Your task to perform on an android device: Go to Android settings Image 0: 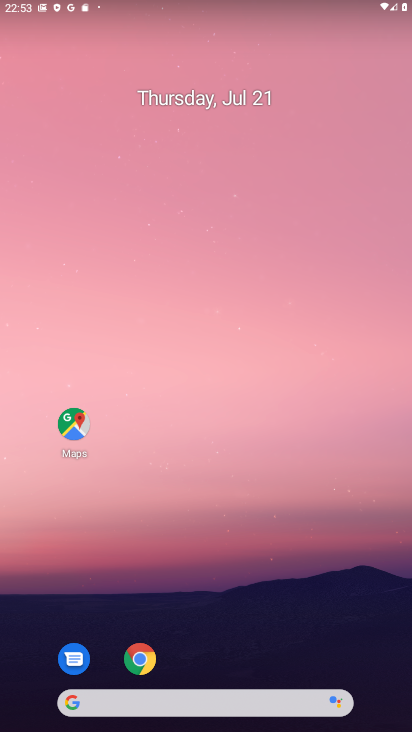
Step 0: press home button
Your task to perform on an android device: Go to Android settings Image 1: 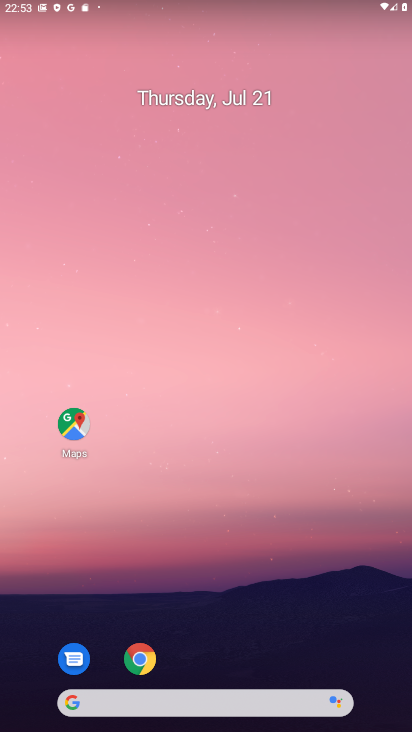
Step 1: drag from (182, 695) to (237, 156)
Your task to perform on an android device: Go to Android settings Image 2: 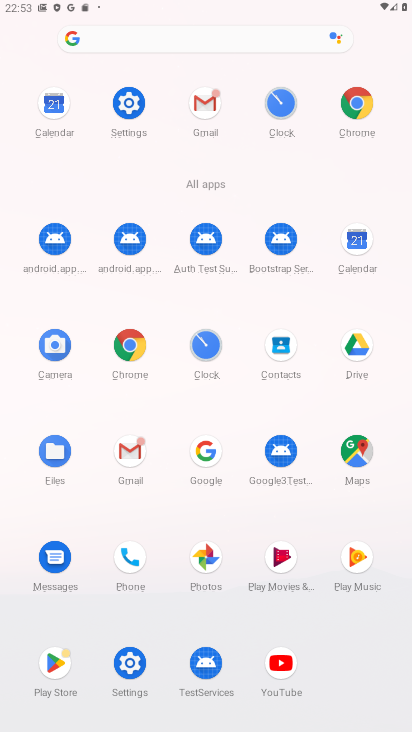
Step 2: click (129, 103)
Your task to perform on an android device: Go to Android settings Image 3: 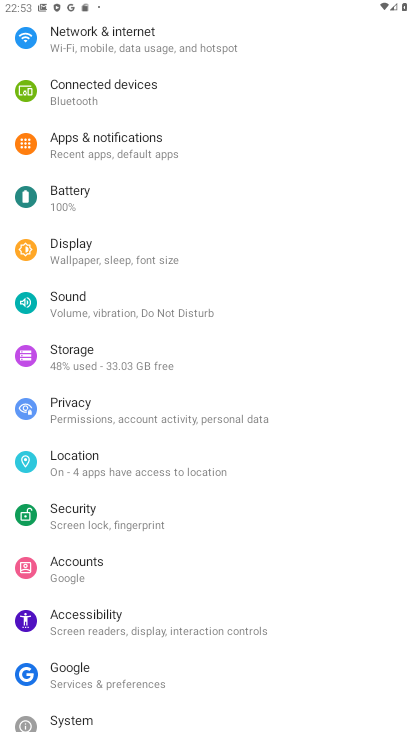
Step 3: task complete